Your task to perform on an android device: install app "Venmo" Image 0: 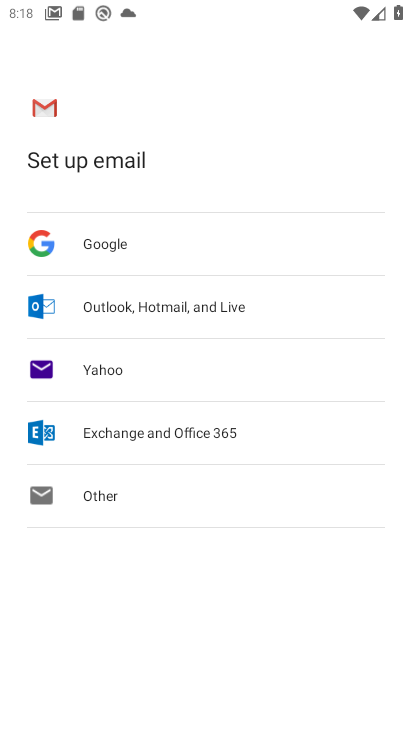
Step 0: press home button
Your task to perform on an android device: install app "Venmo" Image 1: 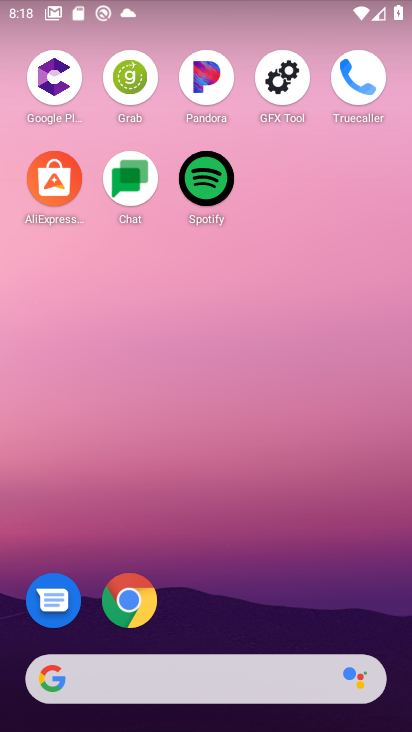
Step 1: press home button
Your task to perform on an android device: install app "Venmo" Image 2: 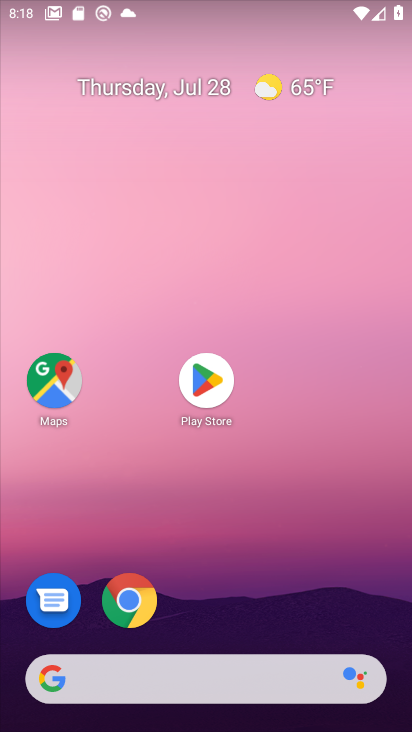
Step 2: click (201, 386)
Your task to perform on an android device: install app "Venmo" Image 3: 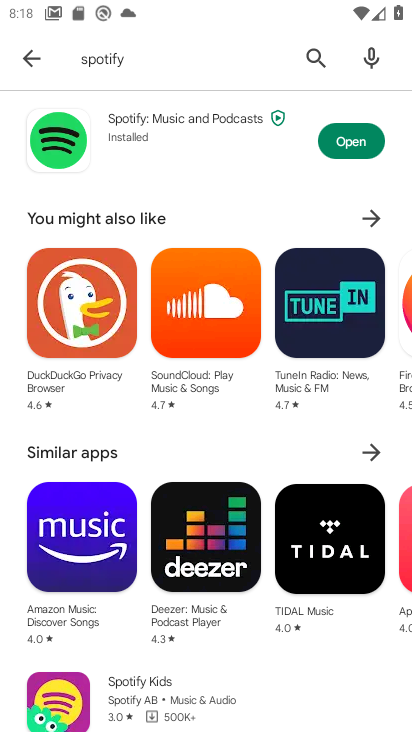
Step 3: click (320, 53)
Your task to perform on an android device: install app "Venmo" Image 4: 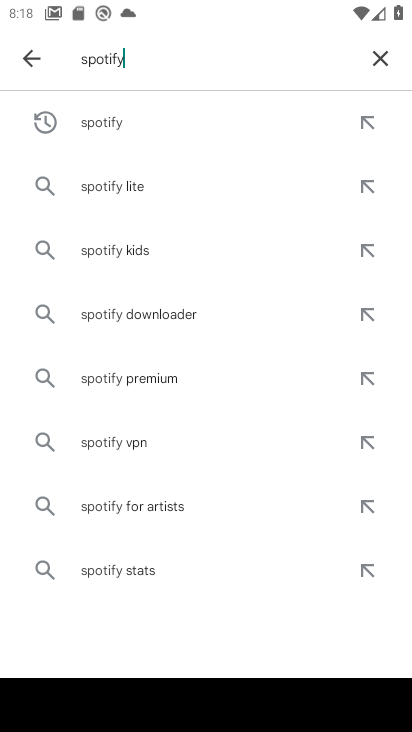
Step 4: click (382, 50)
Your task to perform on an android device: install app "Venmo" Image 5: 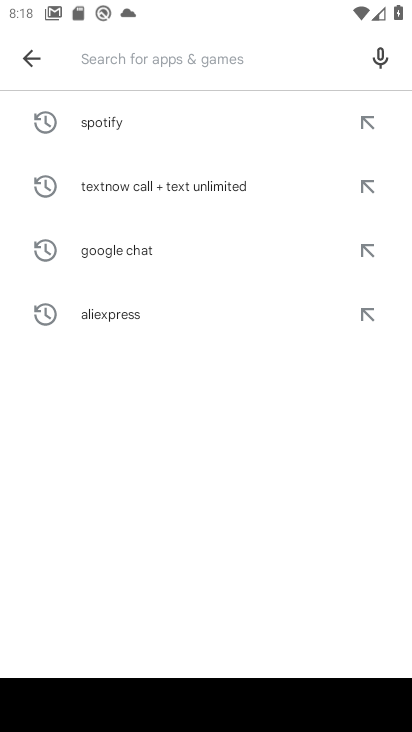
Step 5: type "Venmo"
Your task to perform on an android device: install app "Venmo" Image 6: 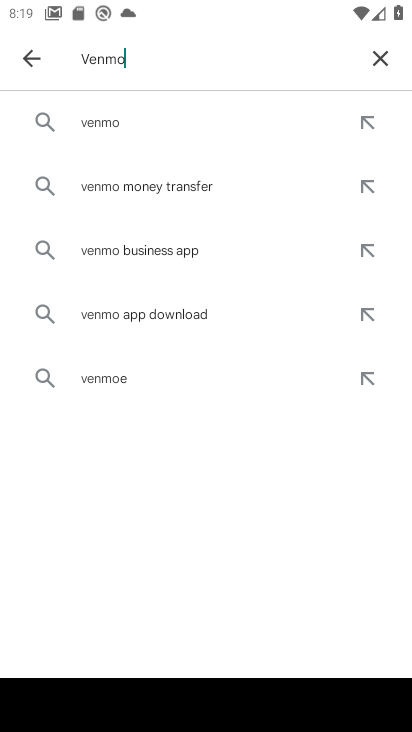
Step 6: click (110, 124)
Your task to perform on an android device: install app "Venmo" Image 7: 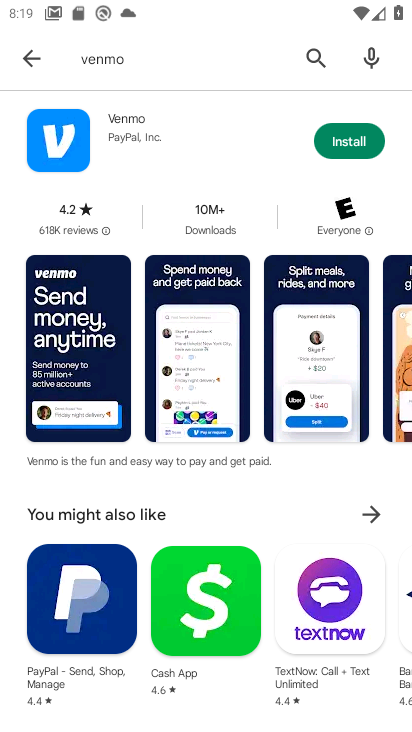
Step 7: click (357, 136)
Your task to perform on an android device: install app "Venmo" Image 8: 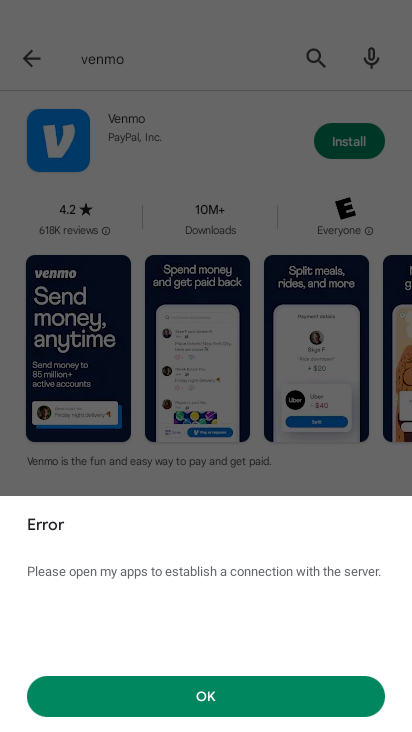
Step 8: click (235, 698)
Your task to perform on an android device: install app "Venmo" Image 9: 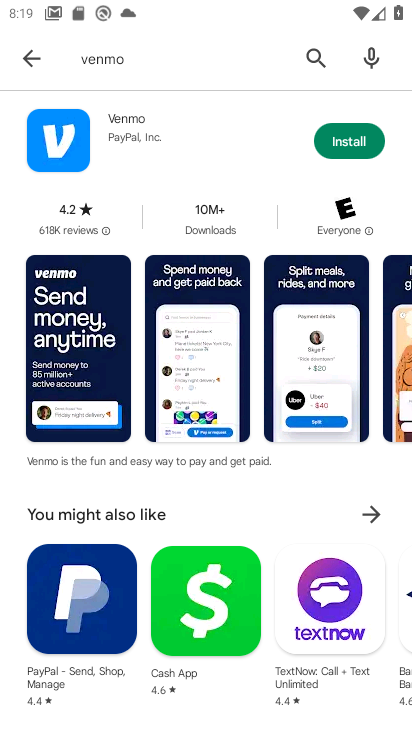
Step 9: click (350, 140)
Your task to perform on an android device: install app "Venmo" Image 10: 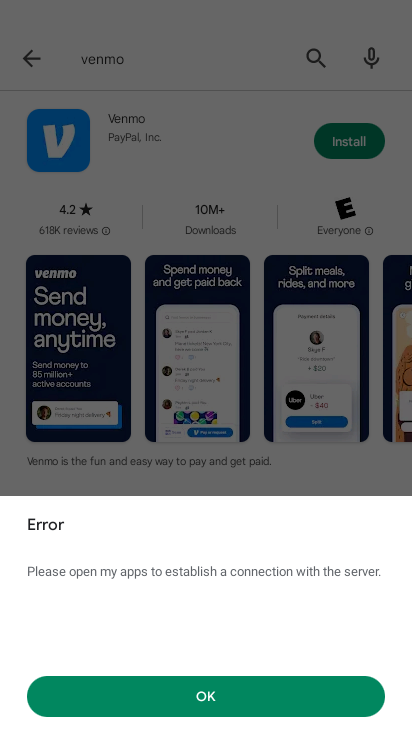
Step 10: click (219, 704)
Your task to perform on an android device: install app "Venmo" Image 11: 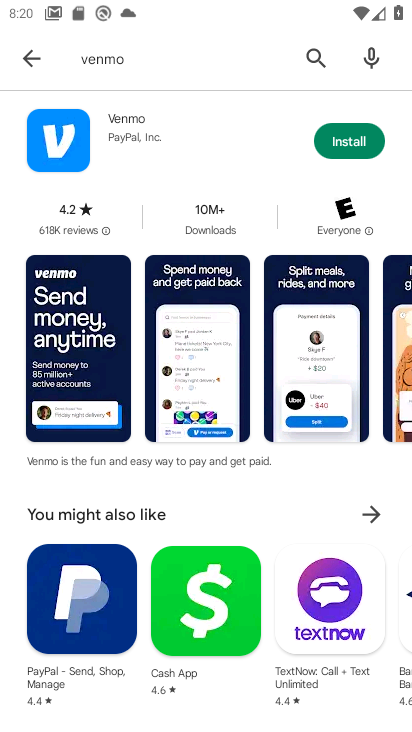
Step 11: task complete